Your task to perform on an android device: Open Wikipedia Image 0: 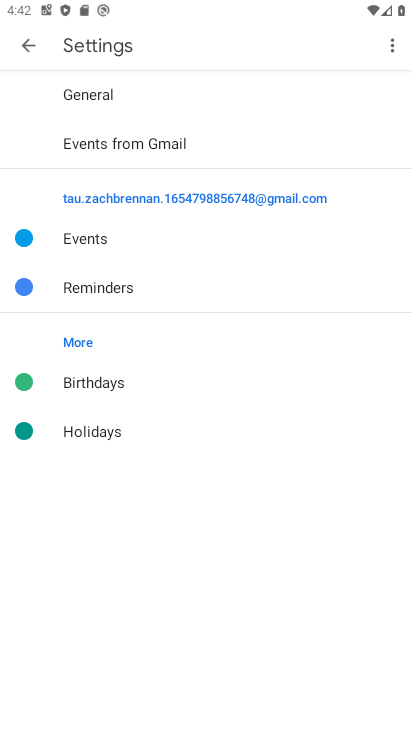
Step 0: press home button
Your task to perform on an android device: Open Wikipedia Image 1: 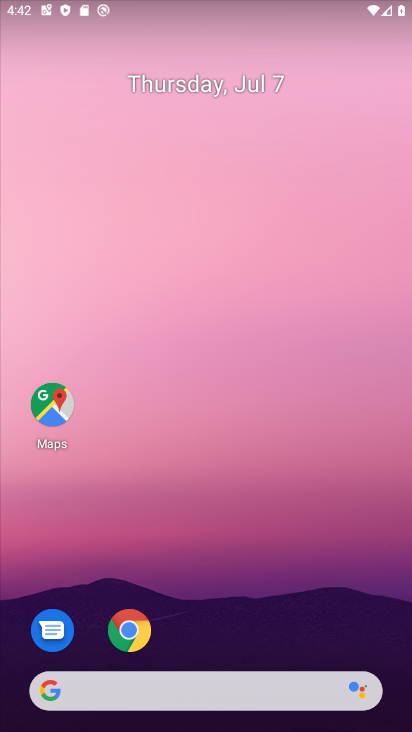
Step 1: click (122, 617)
Your task to perform on an android device: Open Wikipedia Image 2: 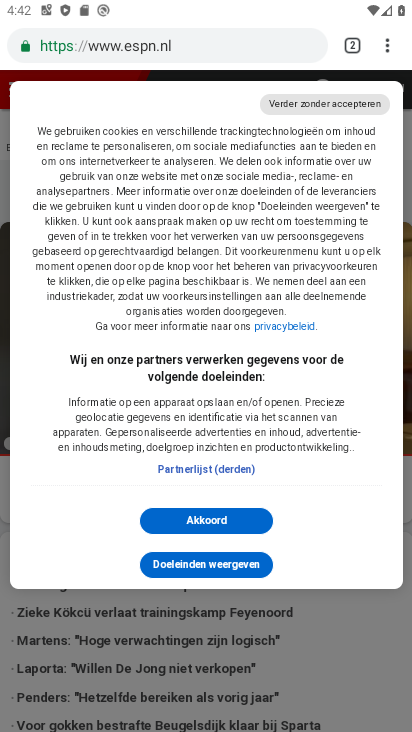
Step 2: press home button
Your task to perform on an android device: Open Wikipedia Image 3: 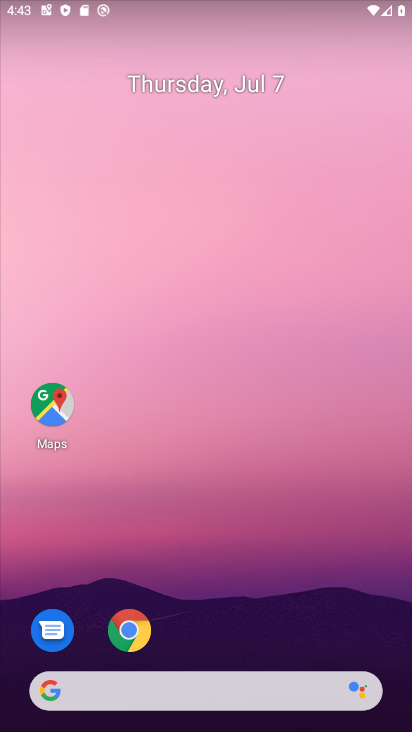
Step 3: click (127, 641)
Your task to perform on an android device: Open Wikipedia Image 4: 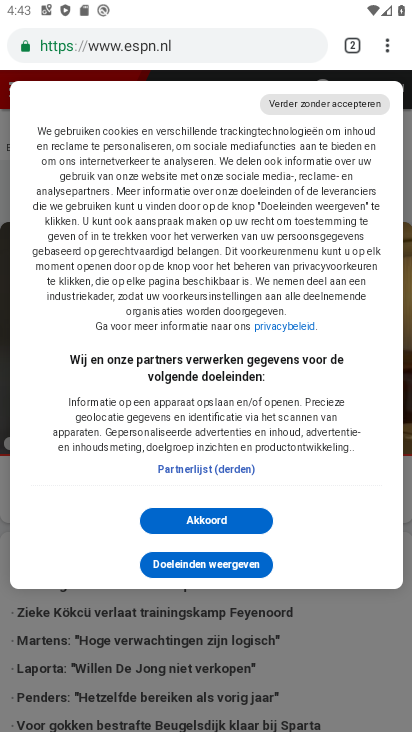
Step 4: click (358, 41)
Your task to perform on an android device: Open Wikipedia Image 5: 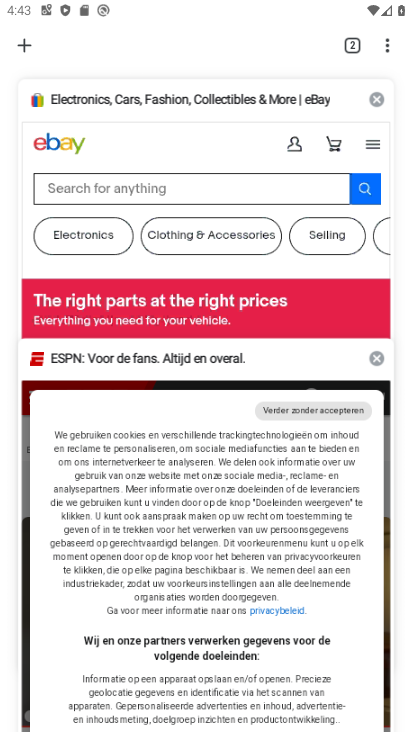
Step 5: click (24, 47)
Your task to perform on an android device: Open Wikipedia Image 6: 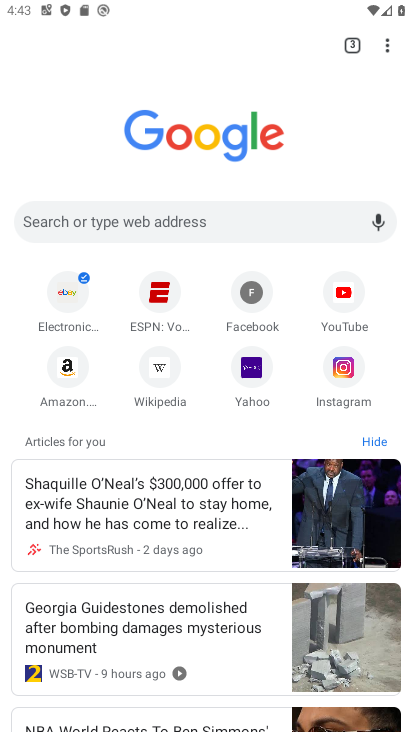
Step 6: click (165, 371)
Your task to perform on an android device: Open Wikipedia Image 7: 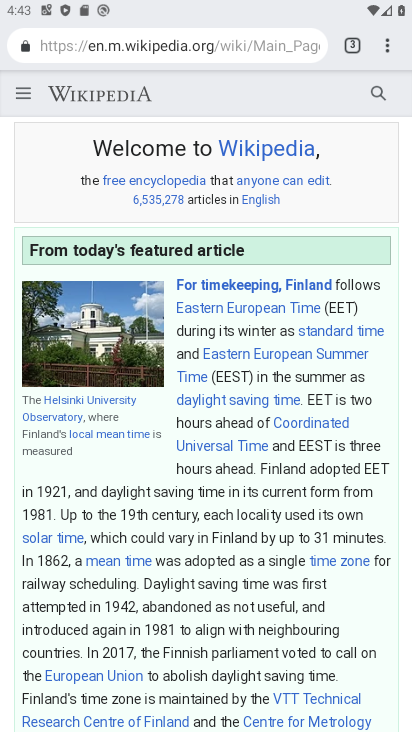
Step 7: task complete